Your task to perform on an android device: install app "McDonald's" Image 0: 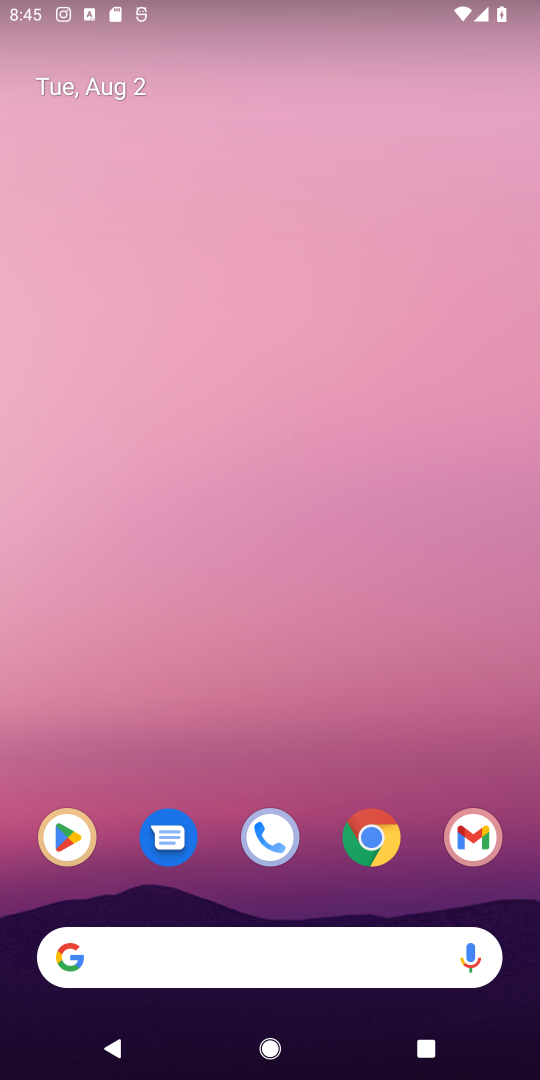
Step 0: click (66, 859)
Your task to perform on an android device: install app "McDonald's" Image 1: 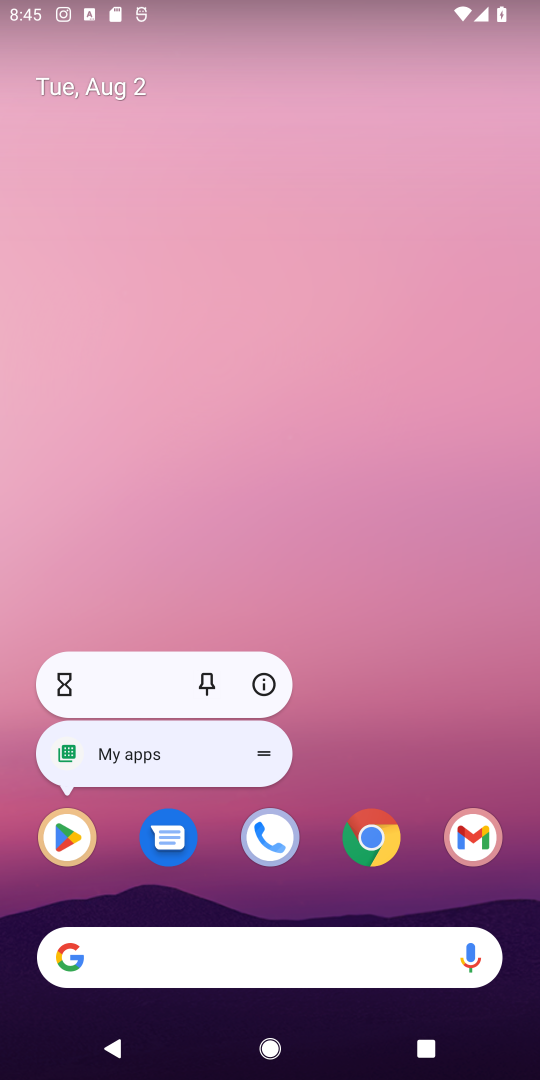
Step 1: click (66, 848)
Your task to perform on an android device: install app "McDonald's" Image 2: 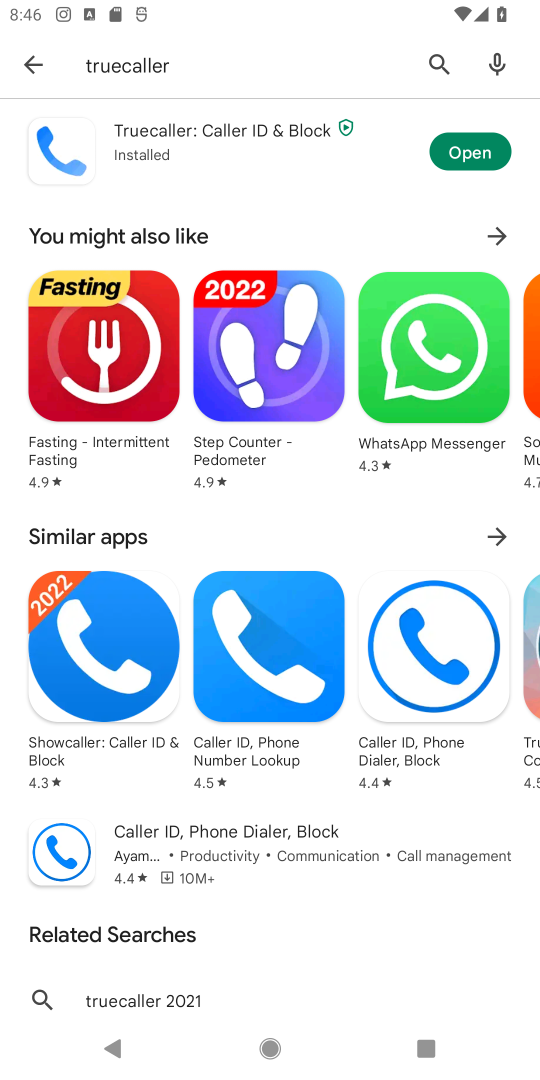
Step 2: click (420, 54)
Your task to perform on an android device: install app "McDonald's" Image 3: 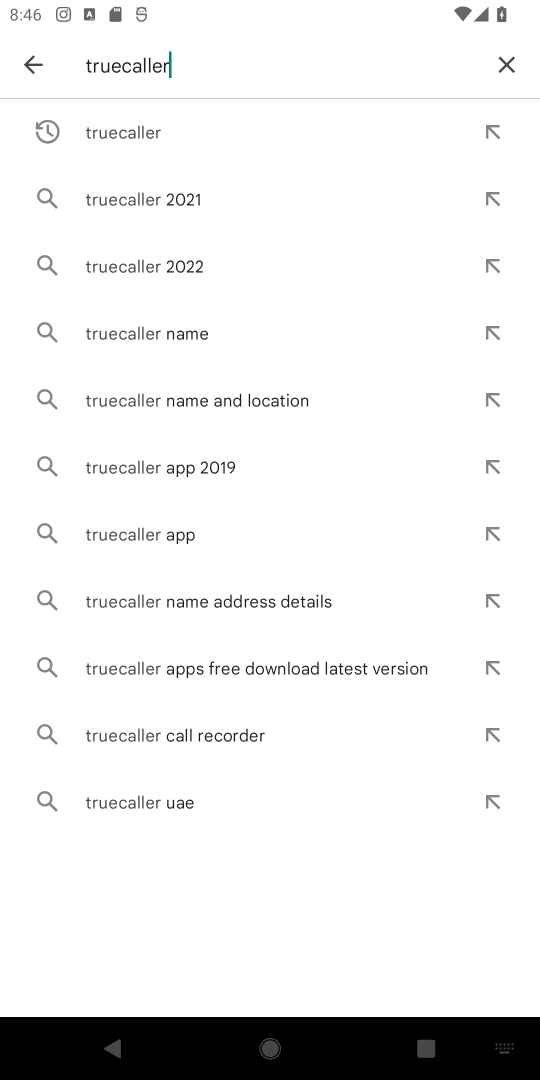
Step 3: click (506, 67)
Your task to perform on an android device: install app "McDonald's" Image 4: 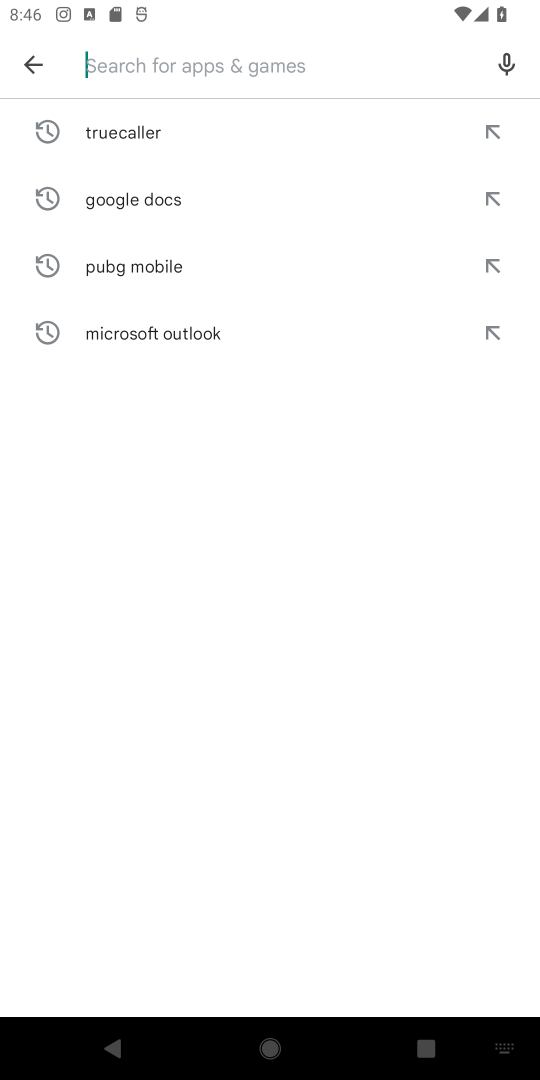
Step 4: type "McDonald's"
Your task to perform on an android device: install app "McDonald's" Image 5: 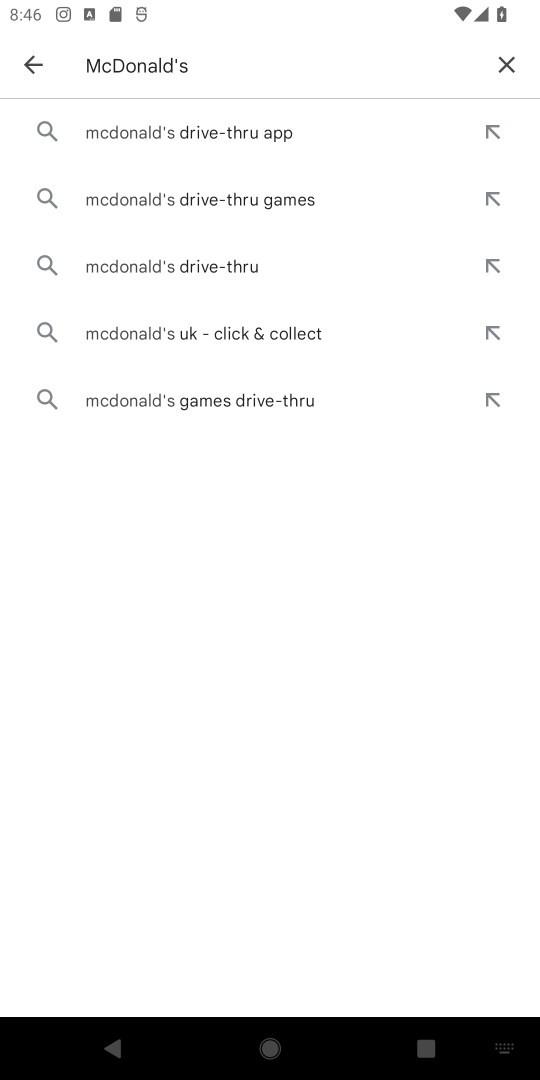
Step 5: click (126, 142)
Your task to perform on an android device: install app "McDonald's" Image 6: 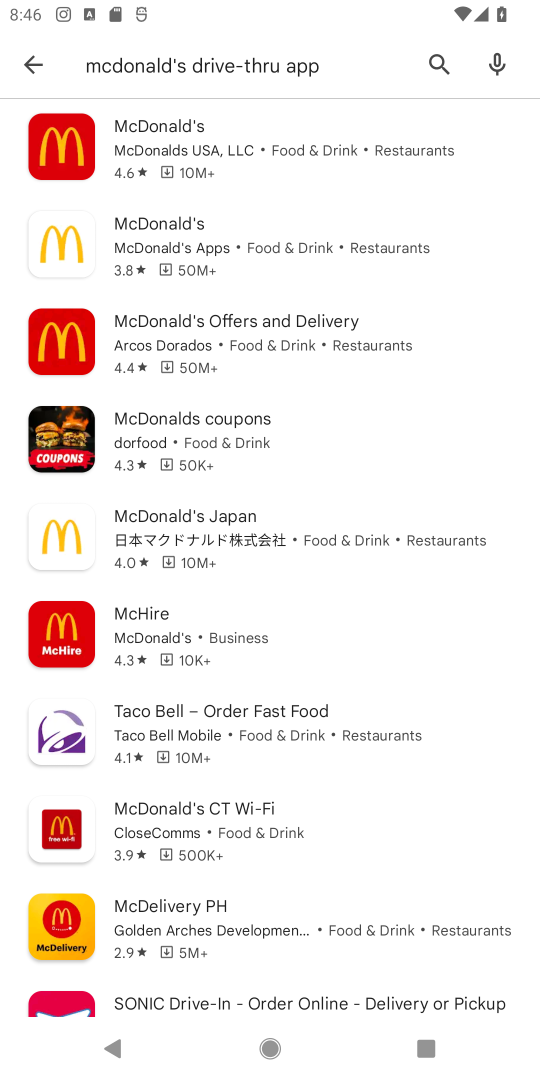
Step 6: click (120, 245)
Your task to perform on an android device: install app "McDonald's" Image 7: 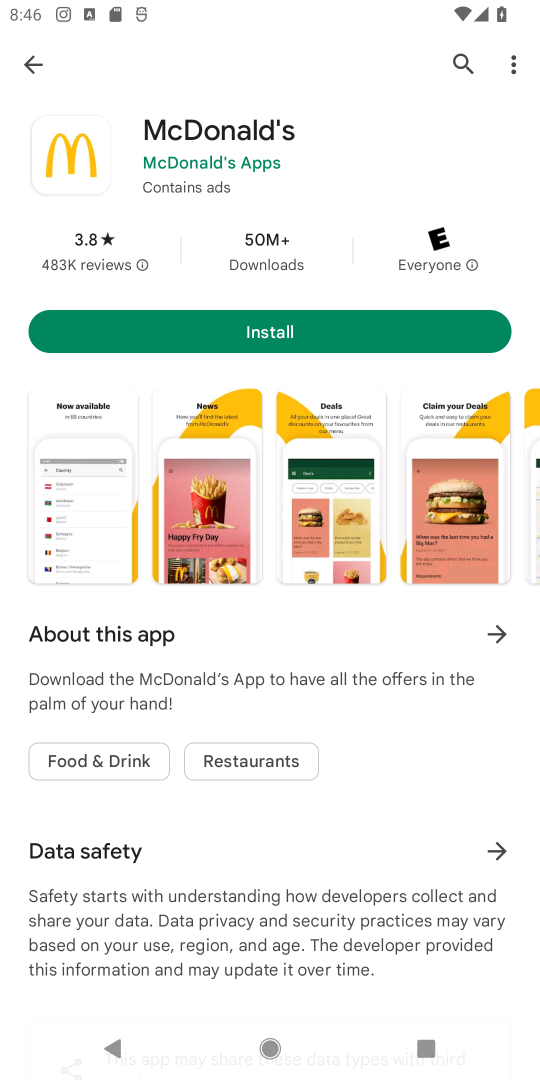
Step 7: click (205, 328)
Your task to perform on an android device: install app "McDonald's" Image 8: 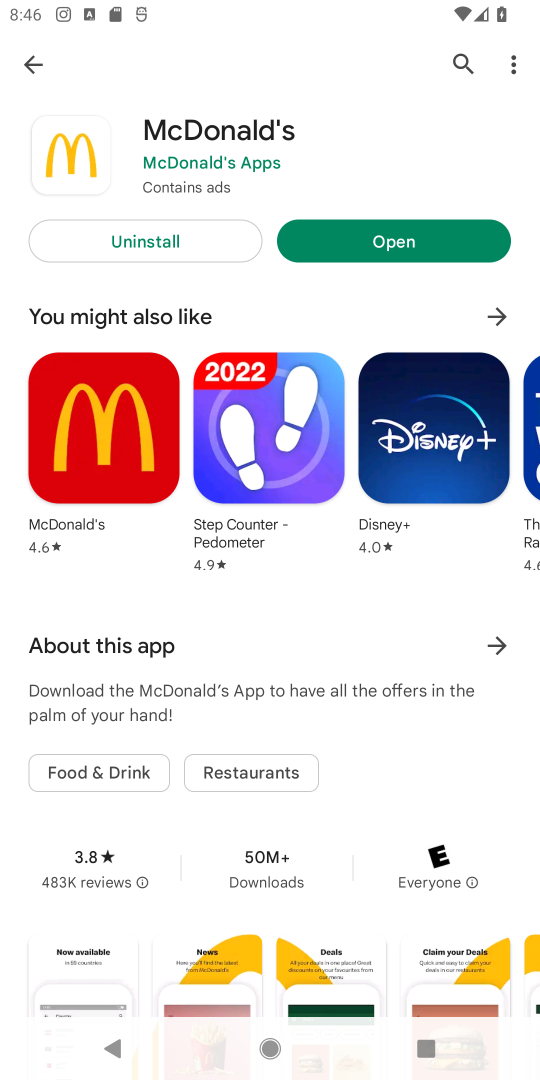
Step 8: task complete